Your task to perform on an android device: Go to internet settings Image 0: 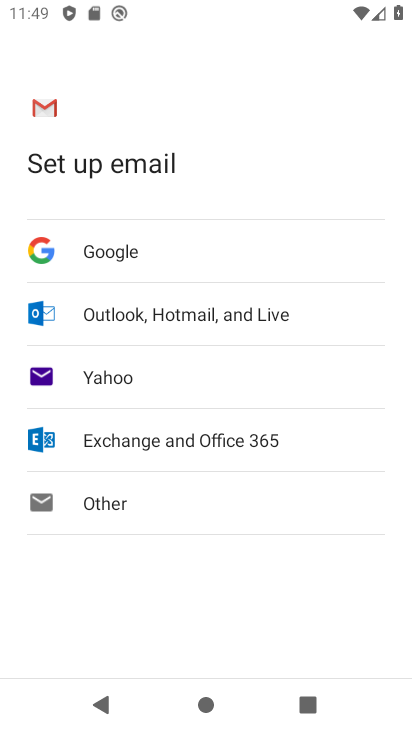
Step 0: press home button
Your task to perform on an android device: Go to internet settings Image 1: 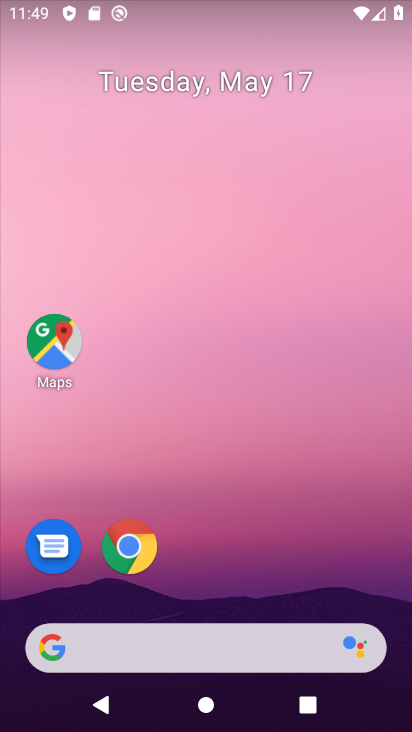
Step 1: drag from (206, 608) to (267, 157)
Your task to perform on an android device: Go to internet settings Image 2: 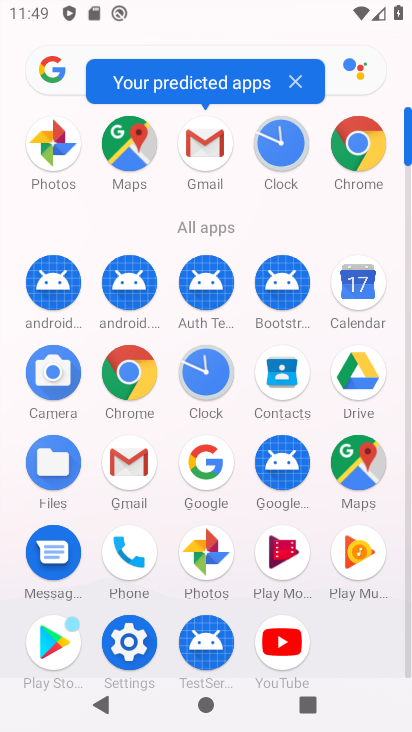
Step 2: drag from (223, 612) to (259, 400)
Your task to perform on an android device: Go to internet settings Image 3: 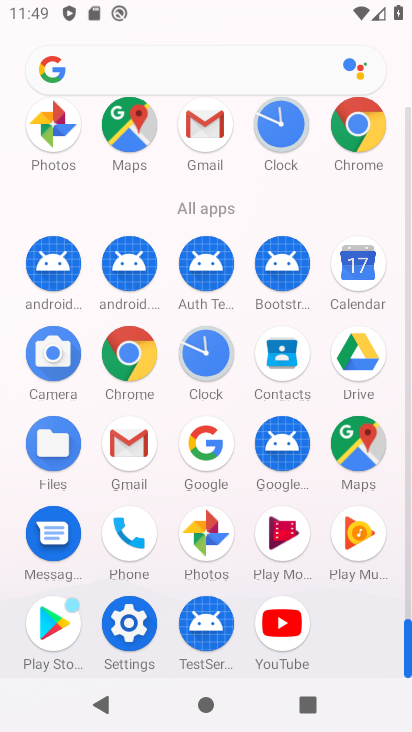
Step 3: click (131, 641)
Your task to perform on an android device: Go to internet settings Image 4: 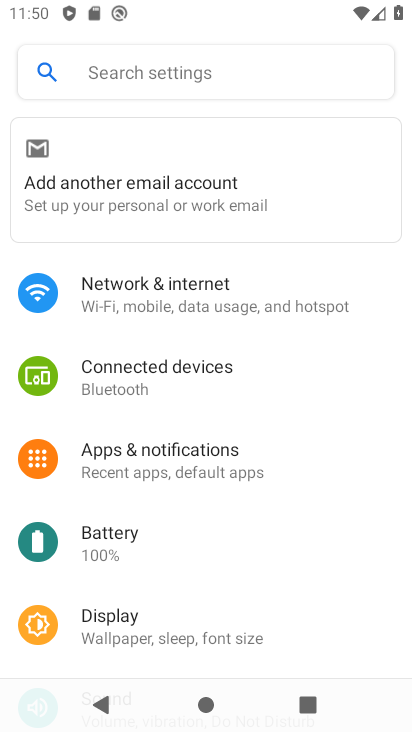
Step 4: click (235, 304)
Your task to perform on an android device: Go to internet settings Image 5: 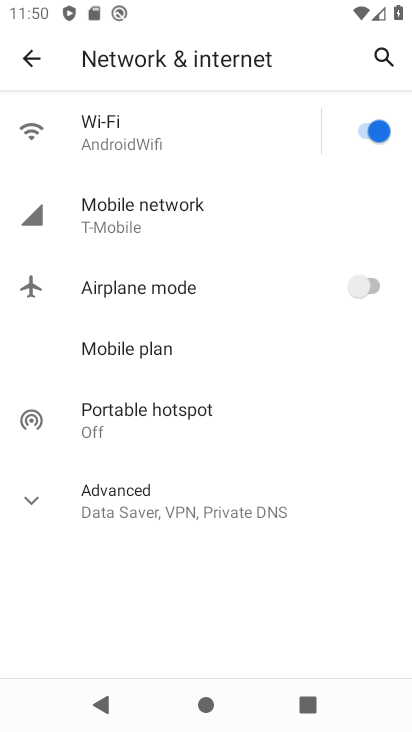
Step 5: click (183, 214)
Your task to perform on an android device: Go to internet settings Image 6: 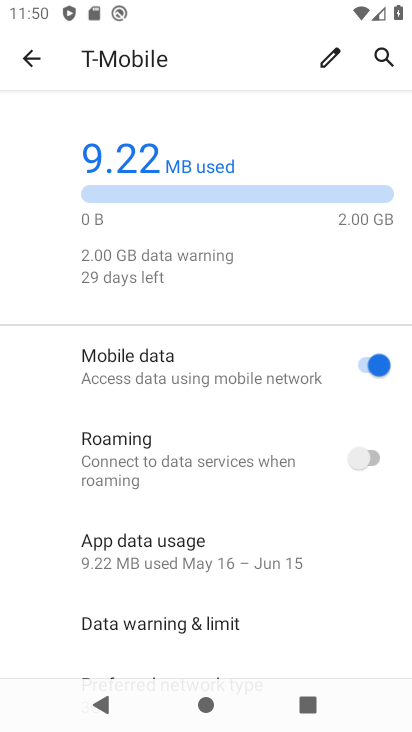
Step 6: task complete